Your task to perform on an android device: Open network settings Image 0: 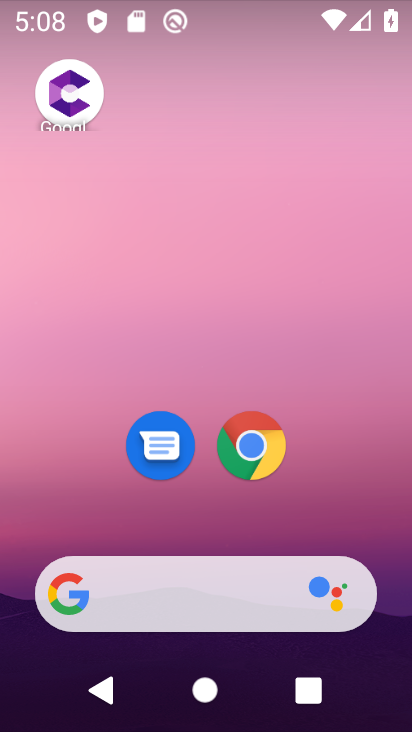
Step 0: drag from (329, 498) to (201, 0)
Your task to perform on an android device: Open network settings Image 1: 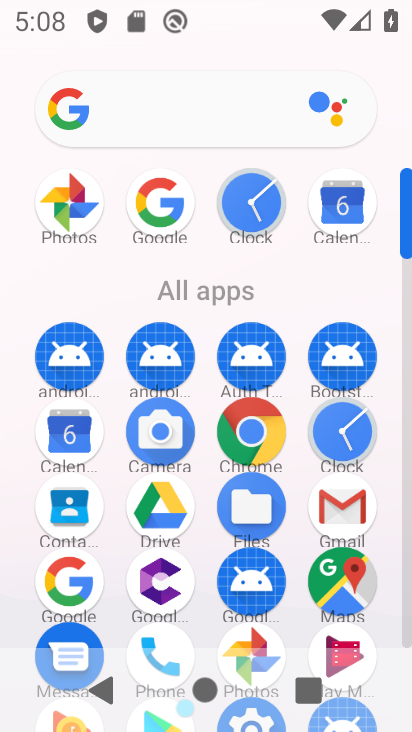
Step 1: drag from (301, 311) to (294, 94)
Your task to perform on an android device: Open network settings Image 2: 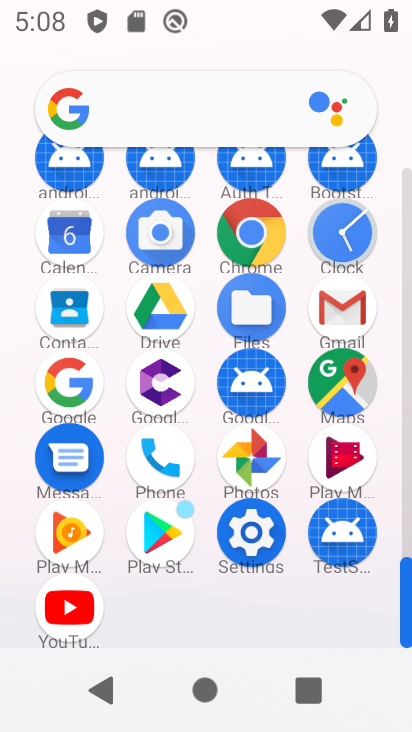
Step 2: click (249, 535)
Your task to perform on an android device: Open network settings Image 3: 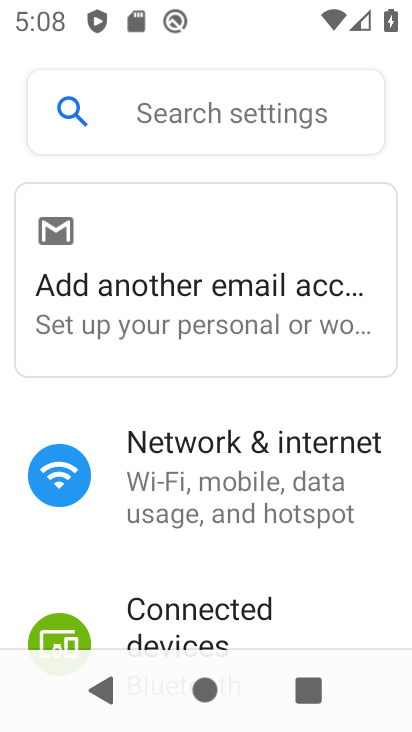
Step 3: click (238, 445)
Your task to perform on an android device: Open network settings Image 4: 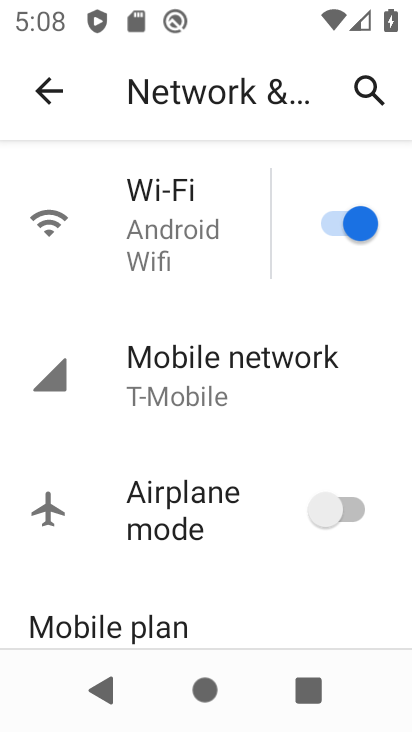
Step 4: click (160, 229)
Your task to perform on an android device: Open network settings Image 5: 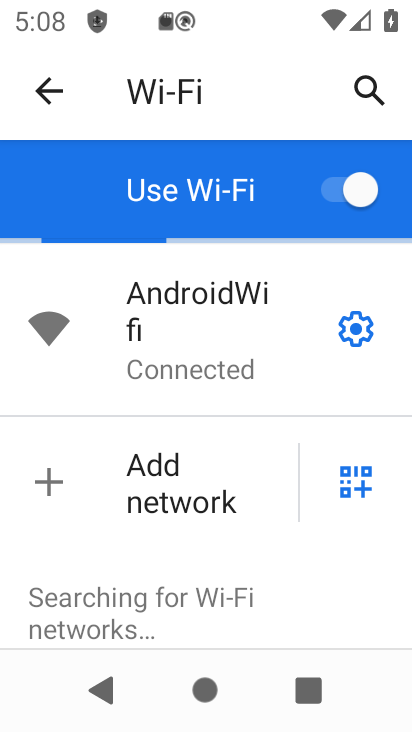
Step 5: task complete